Your task to perform on an android device: turn pop-ups on in chrome Image 0: 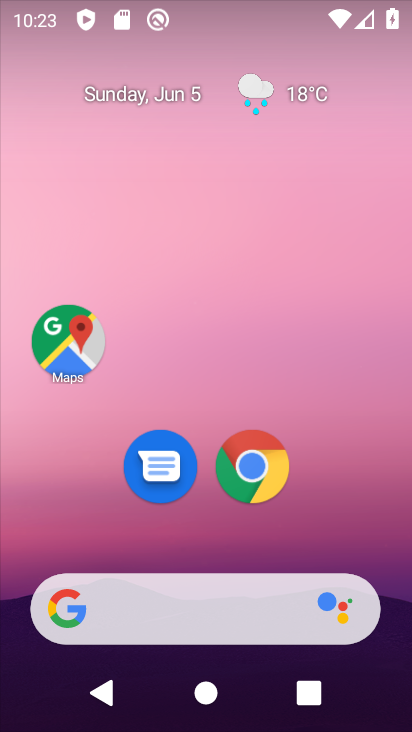
Step 0: drag from (356, 519) to (222, 22)
Your task to perform on an android device: turn pop-ups on in chrome Image 1: 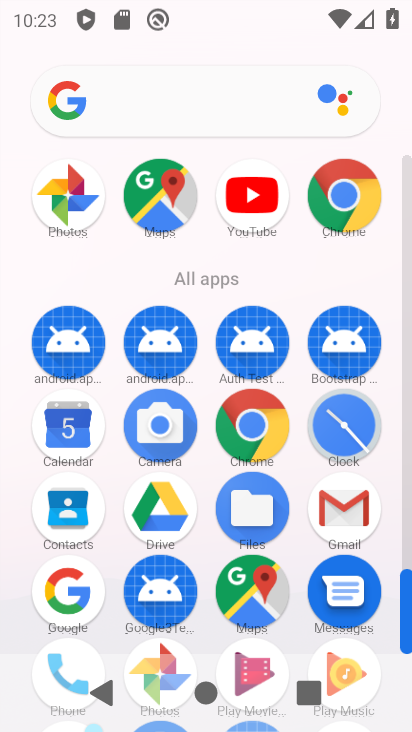
Step 1: click (342, 189)
Your task to perform on an android device: turn pop-ups on in chrome Image 2: 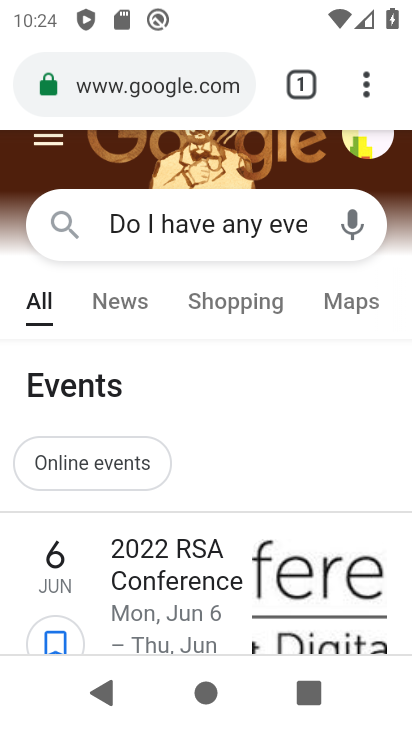
Step 2: drag from (364, 75) to (122, 511)
Your task to perform on an android device: turn pop-ups on in chrome Image 3: 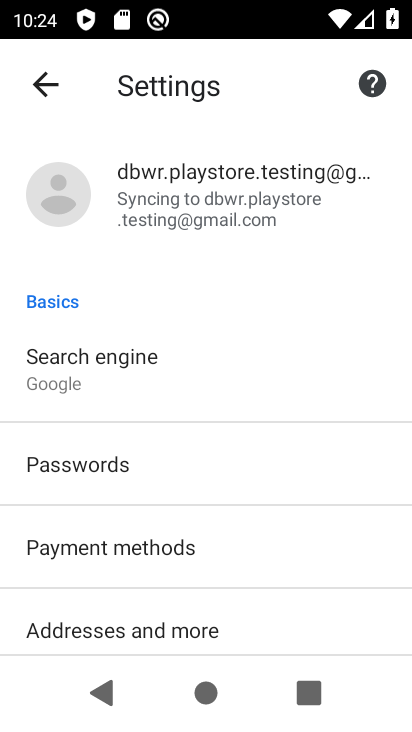
Step 3: drag from (270, 624) to (281, 224)
Your task to perform on an android device: turn pop-ups on in chrome Image 4: 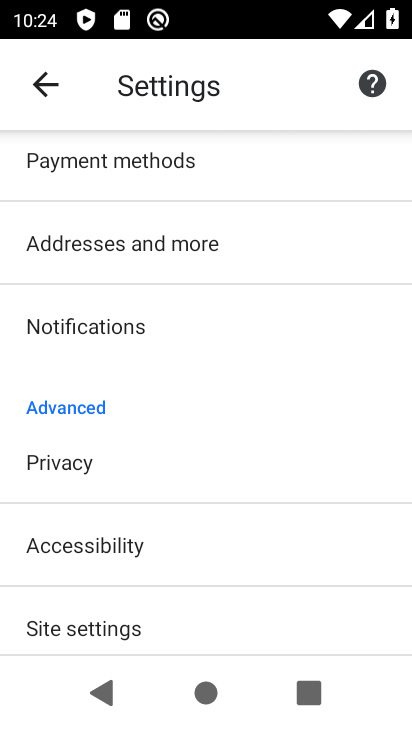
Step 4: drag from (194, 572) to (239, 301)
Your task to perform on an android device: turn pop-ups on in chrome Image 5: 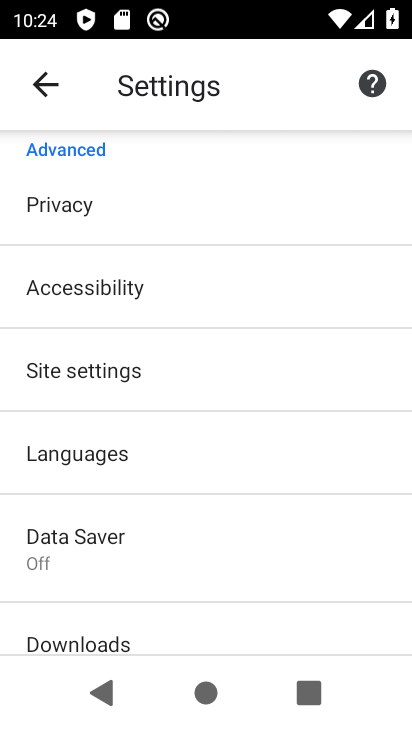
Step 5: click (156, 379)
Your task to perform on an android device: turn pop-ups on in chrome Image 6: 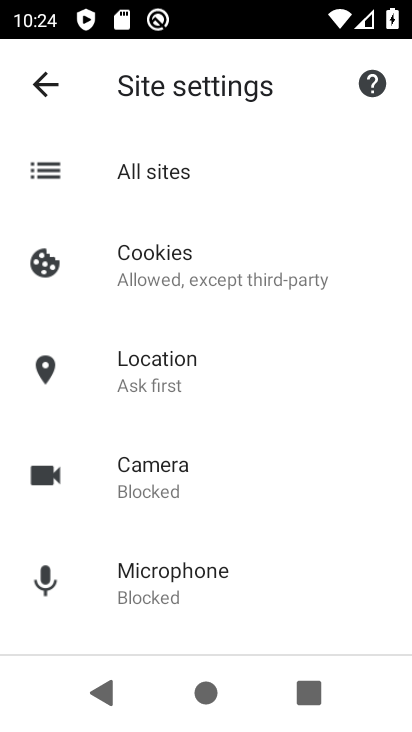
Step 6: drag from (256, 580) to (267, 211)
Your task to perform on an android device: turn pop-ups on in chrome Image 7: 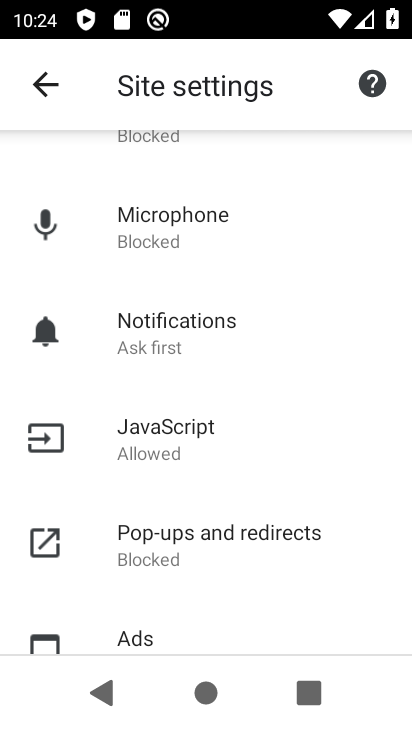
Step 7: click (180, 419)
Your task to perform on an android device: turn pop-ups on in chrome Image 8: 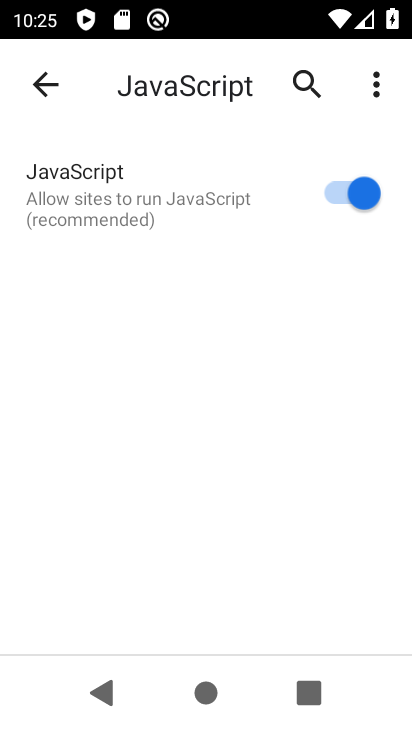
Step 8: task complete